Your task to perform on an android device: turn off notifications in google photos Image 0: 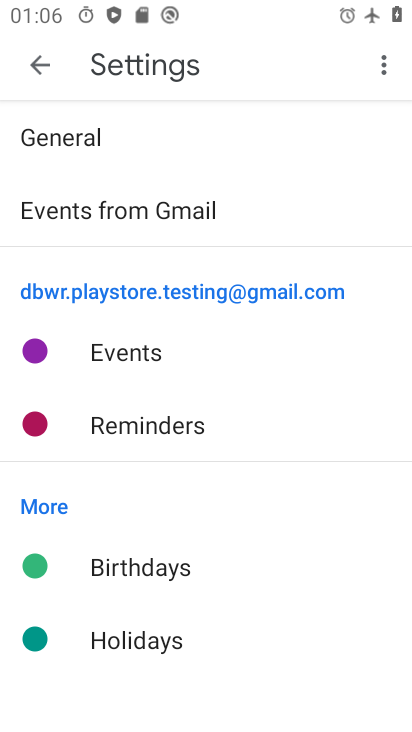
Step 0: press home button
Your task to perform on an android device: turn off notifications in google photos Image 1: 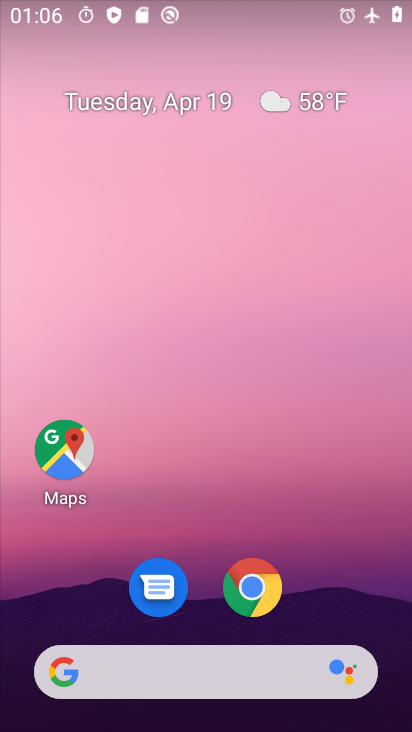
Step 1: drag from (365, 516) to (333, 176)
Your task to perform on an android device: turn off notifications in google photos Image 2: 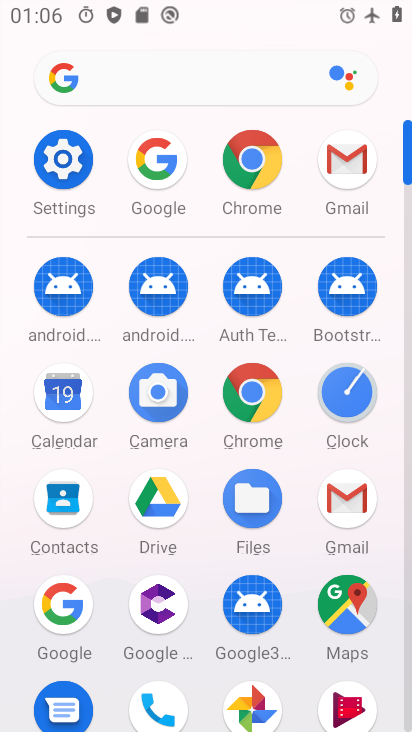
Step 2: click (264, 706)
Your task to perform on an android device: turn off notifications in google photos Image 3: 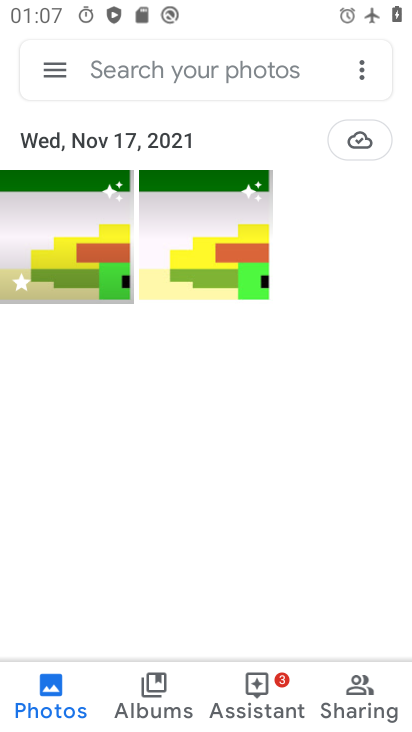
Step 3: click (43, 65)
Your task to perform on an android device: turn off notifications in google photos Image 4: 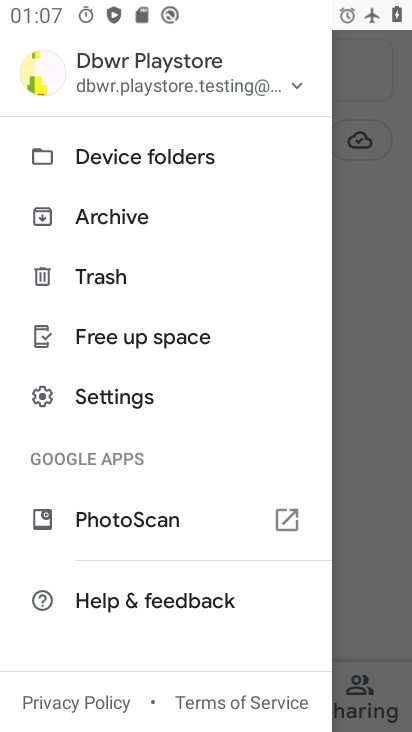
Step 4: click (122, 390)
Your task to perform on an android device: turn off notifications in google photos Image 5: 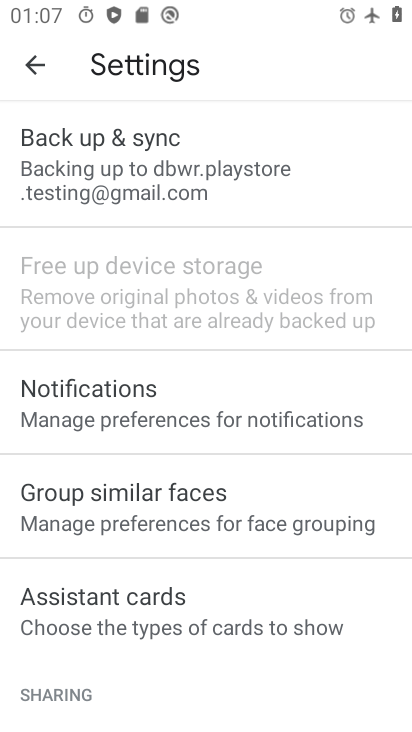
Step 5: click (118, 392)
Your task to perform on an android device: turn off notifications in google photos Image 6: 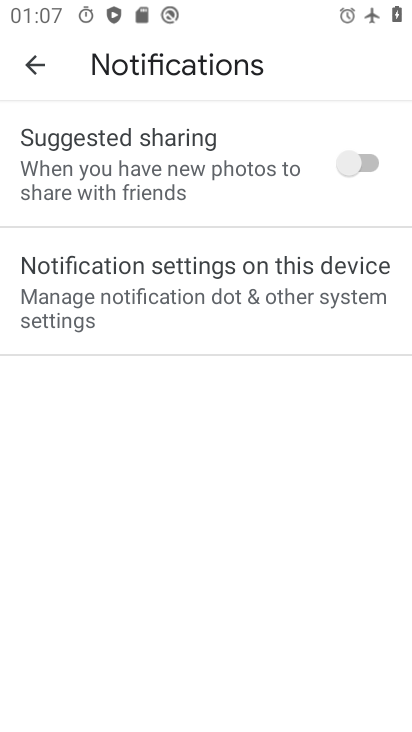
Step 6: click (286, 272)
Your task to perform on an android device: turn off notifications in google photos Image 7: 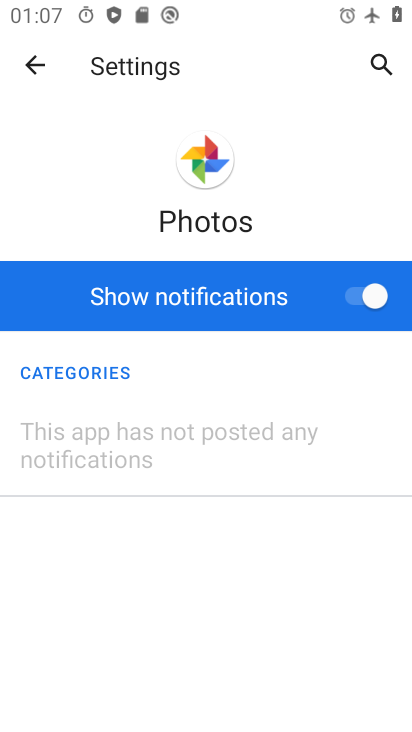
Step 7: click (354, 305)
Your task to perform on an android device: turn off notifications in google photos Image 8: 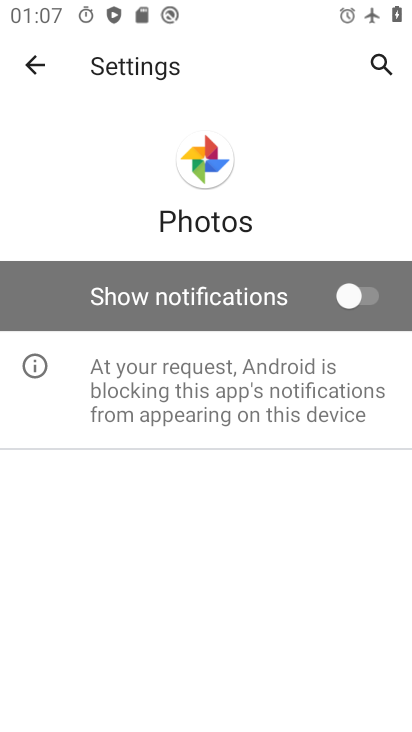
Step 8: task complete